Your task to perform on an android device: Open sound settings Image 0: 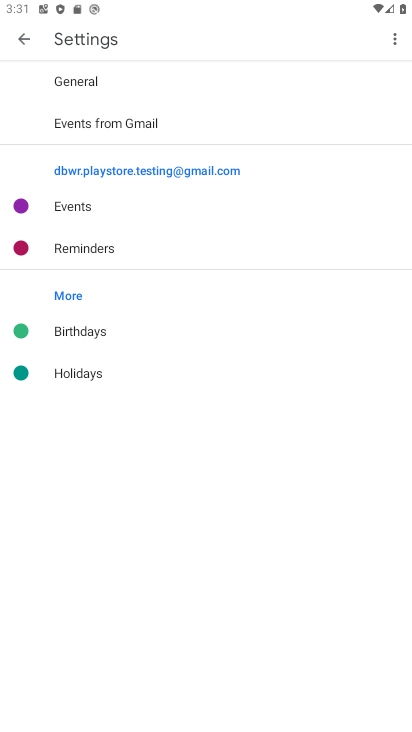
Step 0: press back button
Your task to perform on an android device: Open sound settings Image 1: 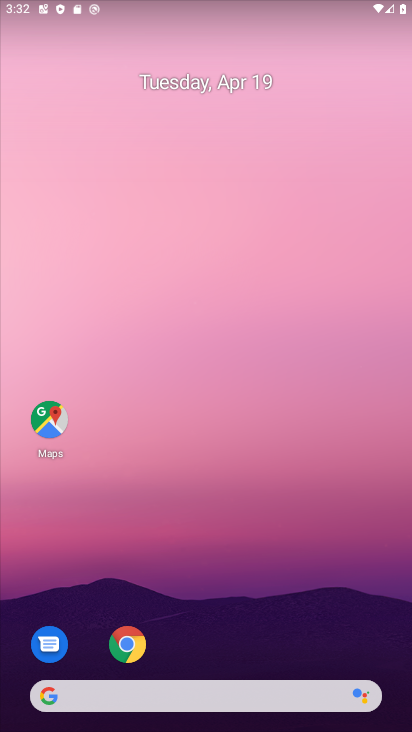
Step 1: drag from (340, 348) to (333, 157)
Your task to perform on an android device: Open sound settings Image 2: 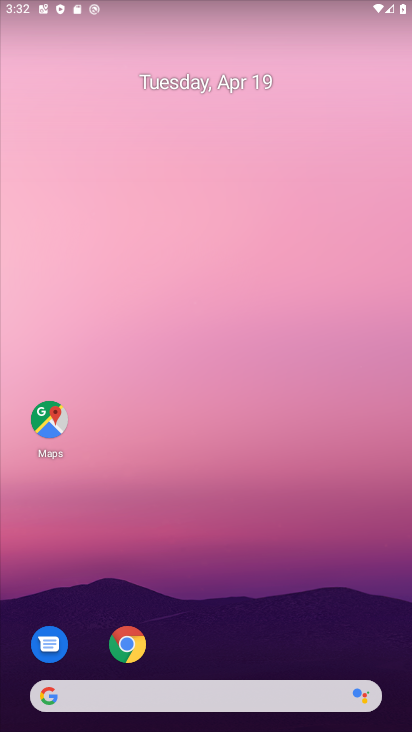
Step 2: click (307, 189)
Your task to perform on an android device: Open sound settings Image 3: 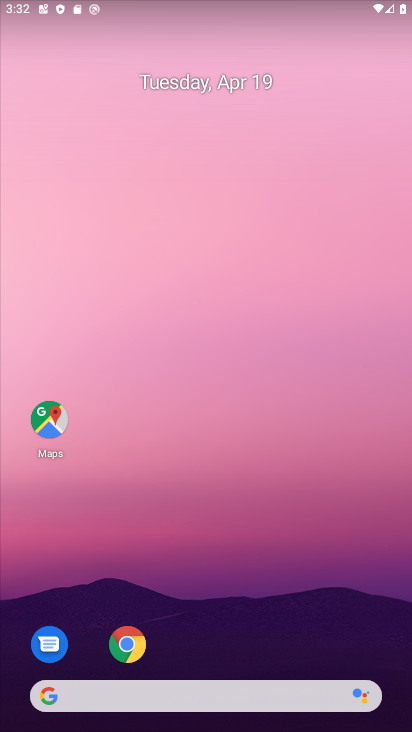
Step 3: drag from (360, 542) to (318, 156)
Your task to perform on an android device: Open sound settings Image 4: 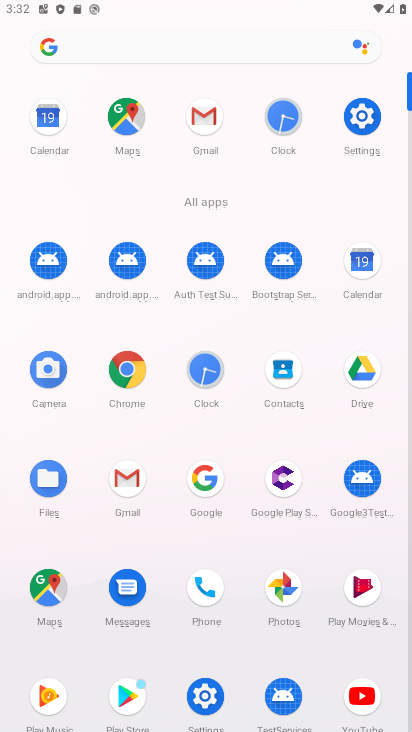
Step 4: click (353, 114)
Your task to perform on an android device: Open sound settings Image 5: 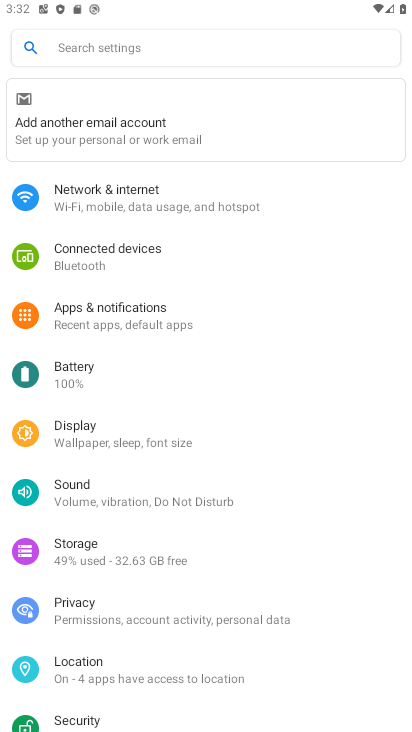
Step 5: click (73, 486)
Your task to perform on an android device: Open sound settings Image 6: 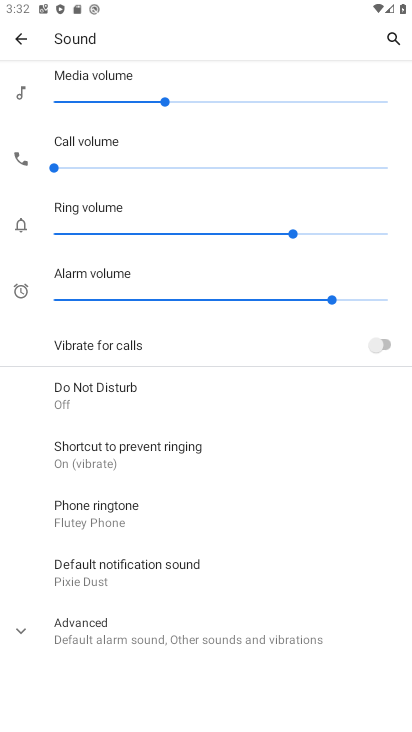
Step 6: task complete